Your task to perform on an android device: uninstall "Venmo" Image 0: 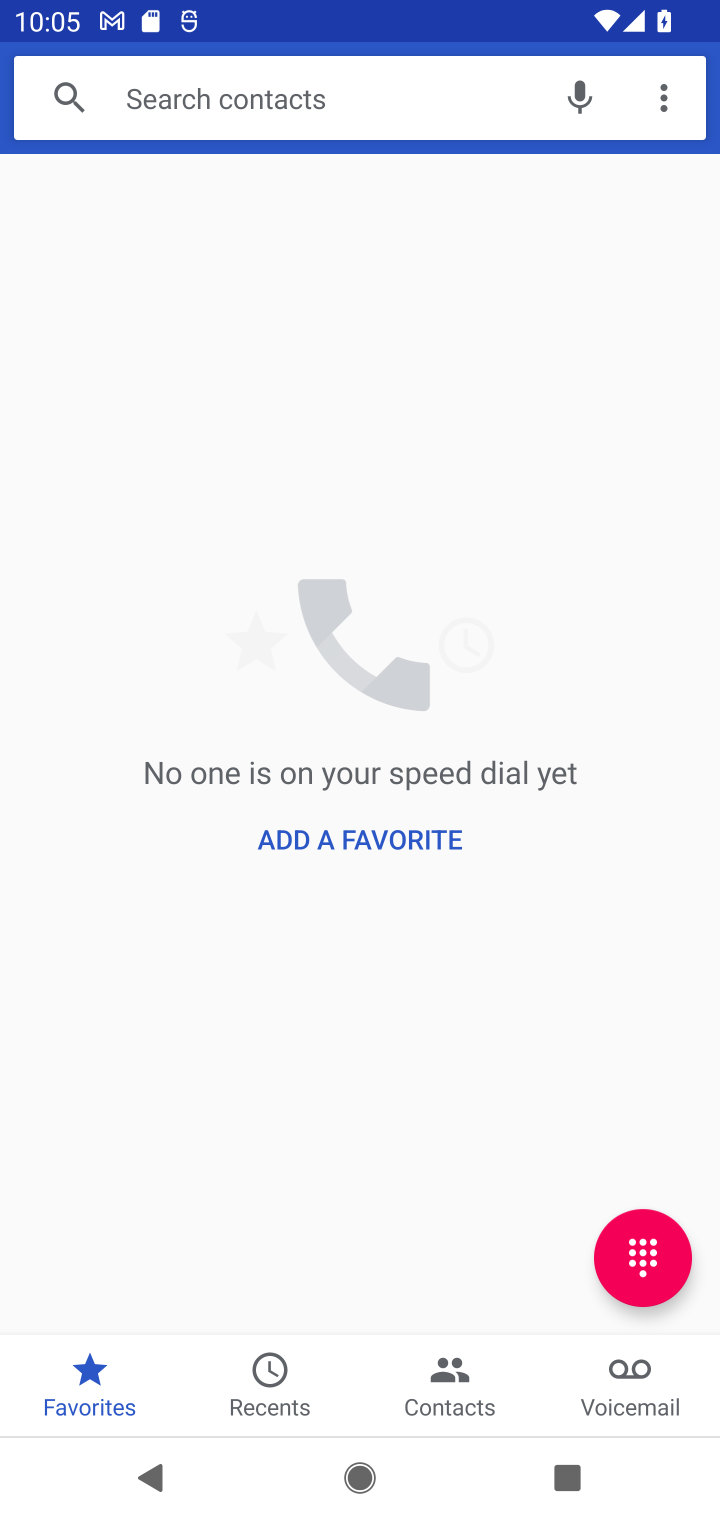
Step 0: press home button
Your task to perform on an android device: uninstall "Venmo" Image 1: 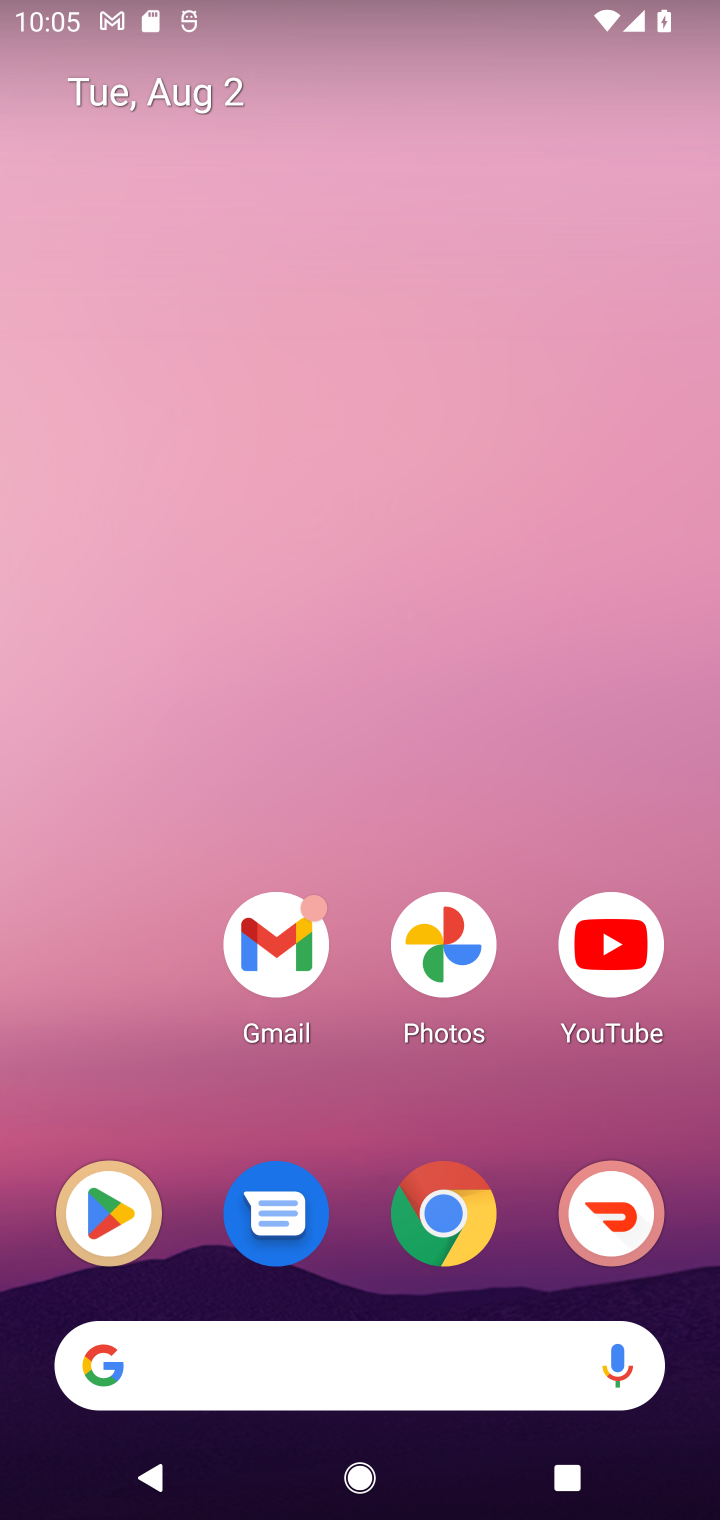
Step 1: click (352, 1261)
Your task to perform on an android device: uninstall "Venmo" Image 2: 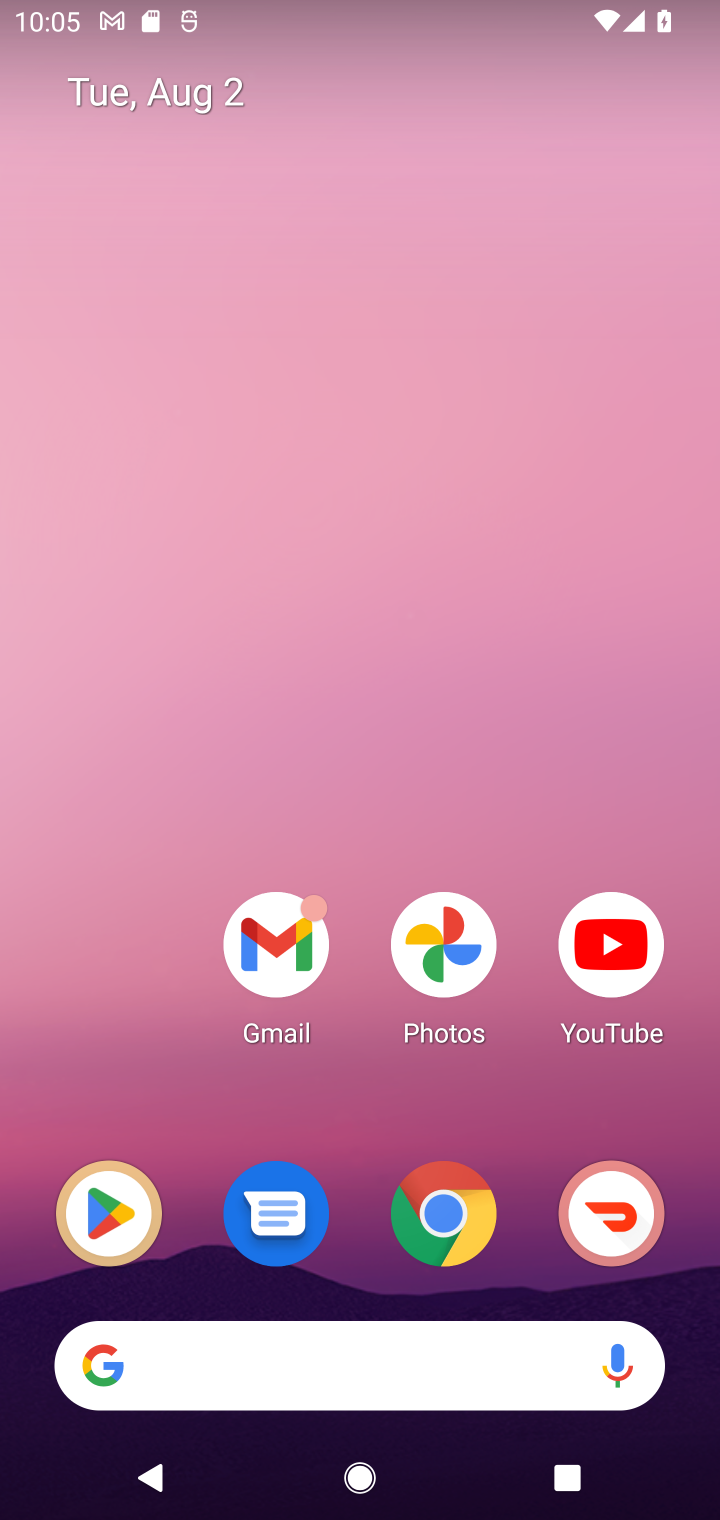
Step 2: click (97, 1218)
Your task to perform on an android device: uninstall "Venmo" Image 3: 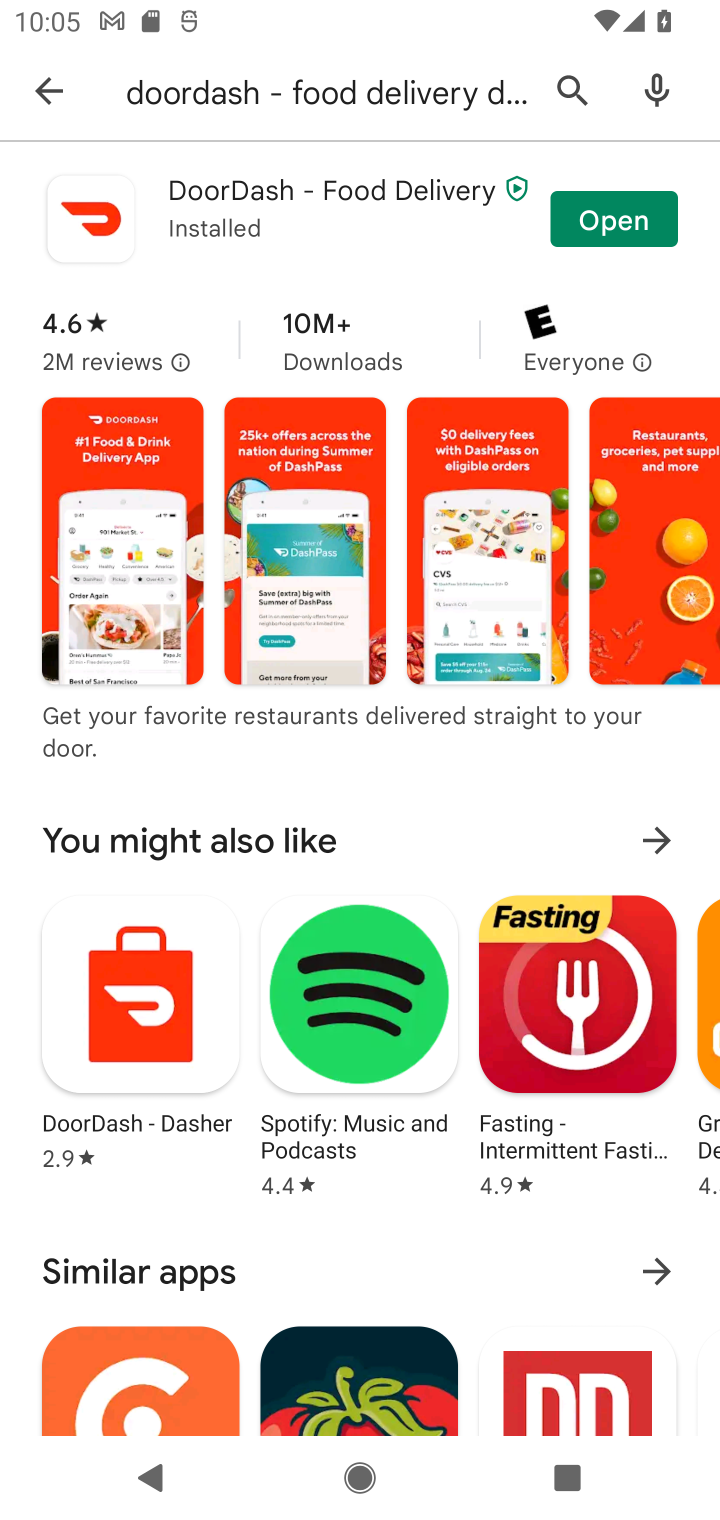
Step 3: click (49, 88)
Your task to perform on an android device: uninstall "Venmo" Image 4: 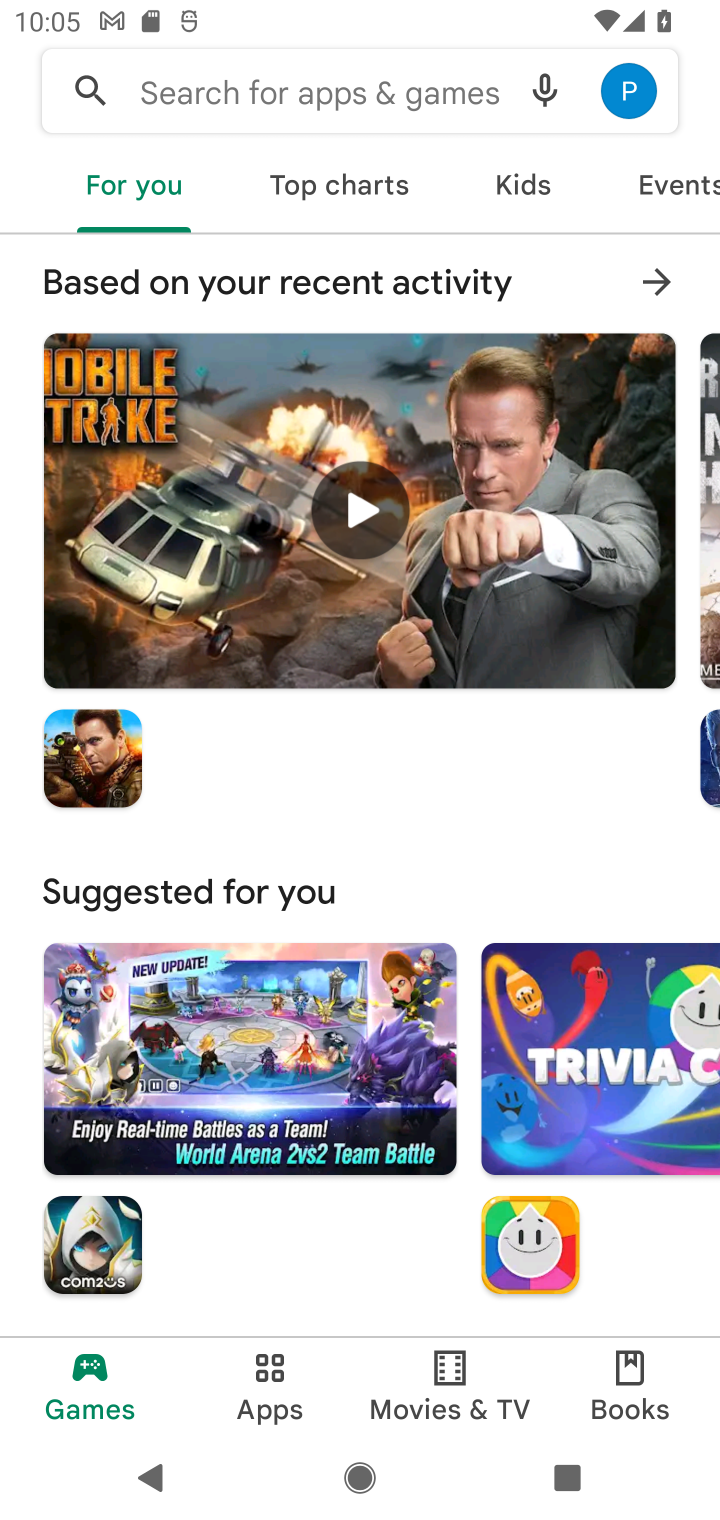
Step 4: click (264, 88)
Your task to perform on an android device: uninstall "Venmo" Image 5: 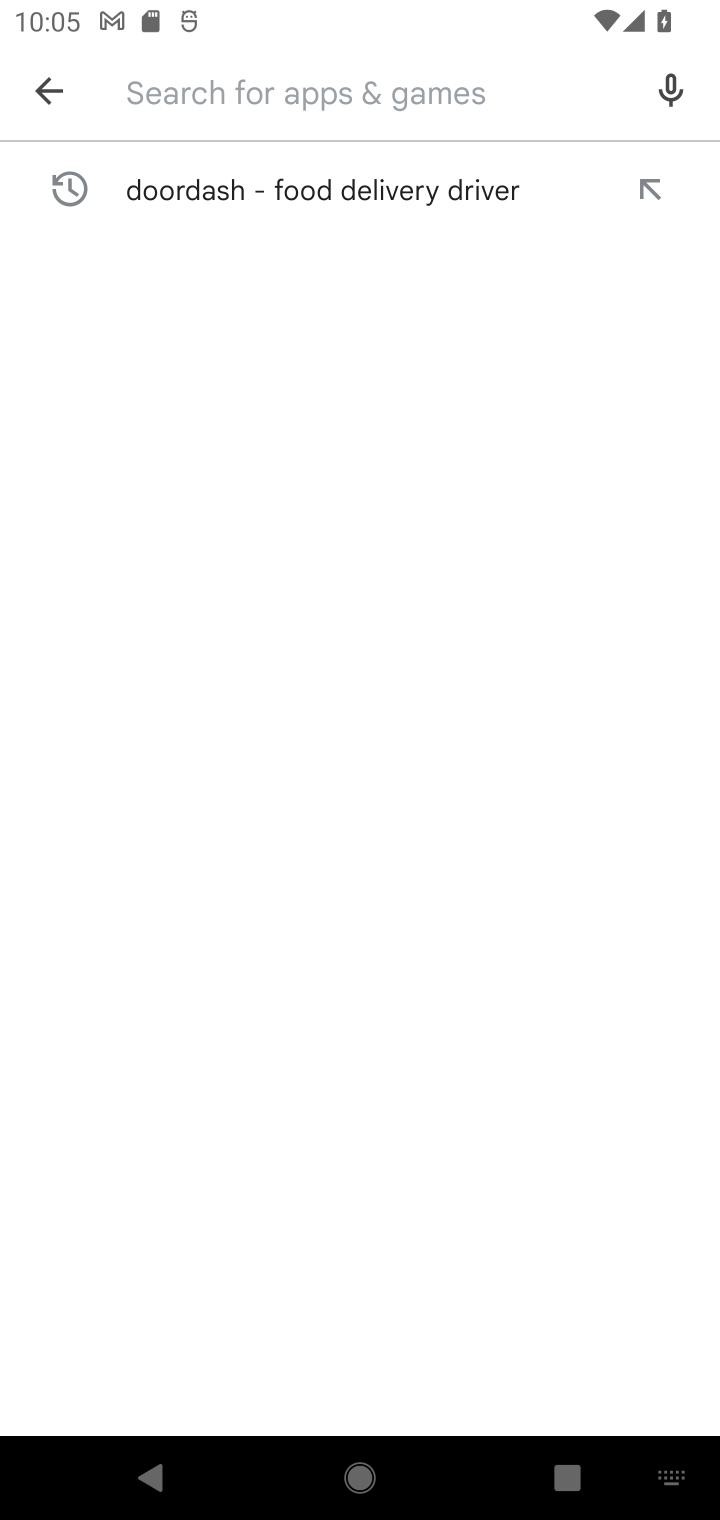
Step 5: type "Venmo"
Your task to perform on an android device: uninstall "Venmo" Image 6: 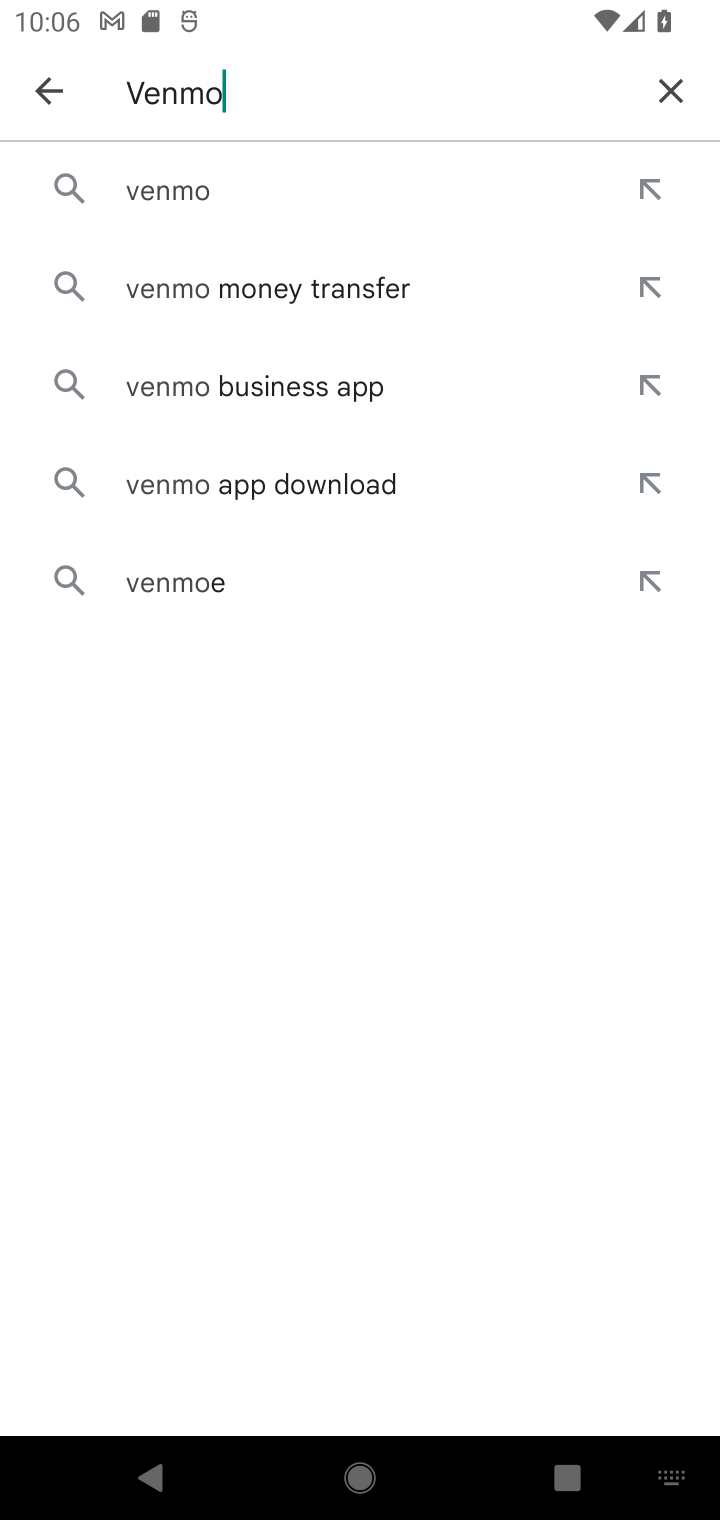
Step 6: click (177, 173)
Your task to perform on an android device: uninstall "Venmo" Image 7: 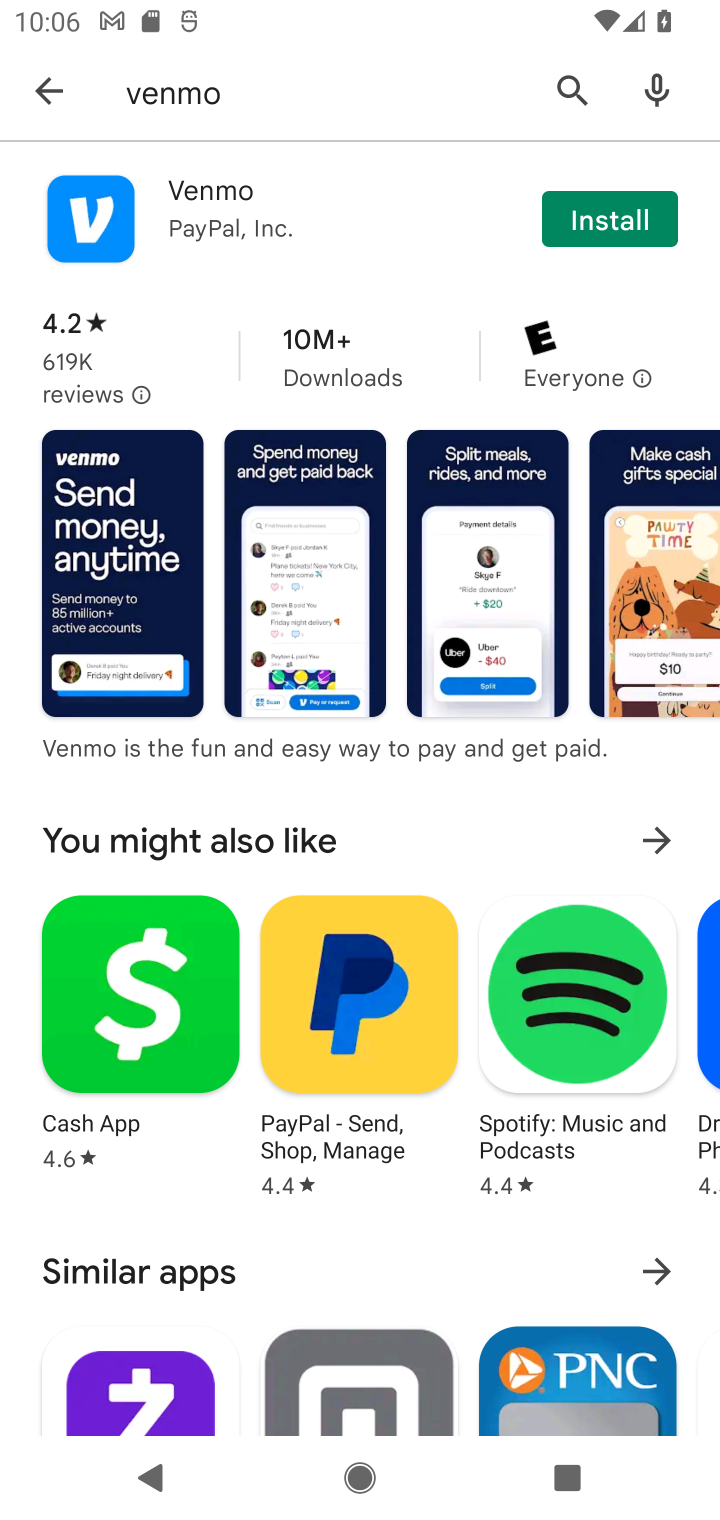
Step 7: task complete